Your task to perform on an android device: Is it going to rain tomorrow? Image 0: 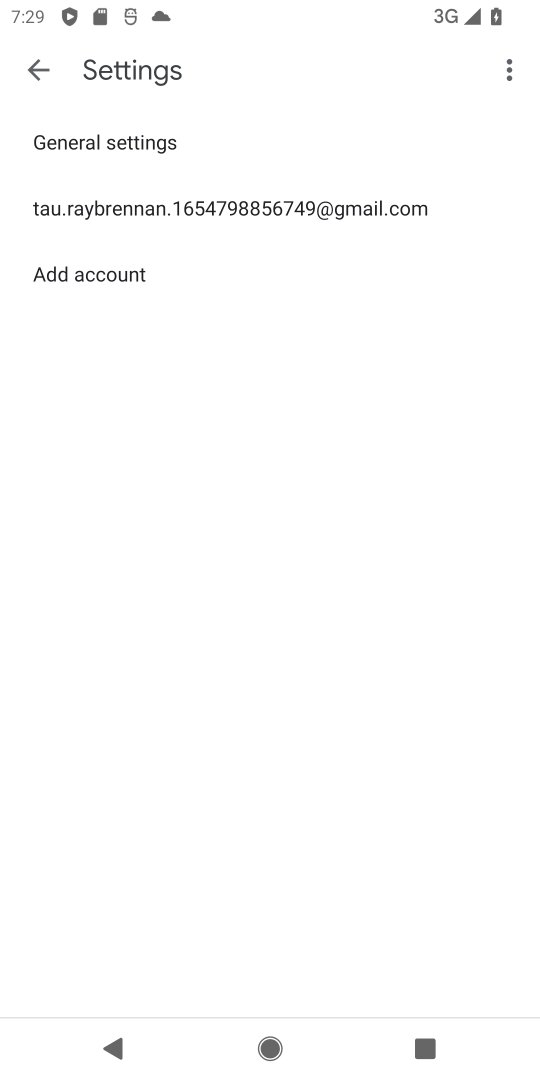
Step 0: press home button
Your task to perform on an android device: Is it going to rain tomorrow? Image 1: 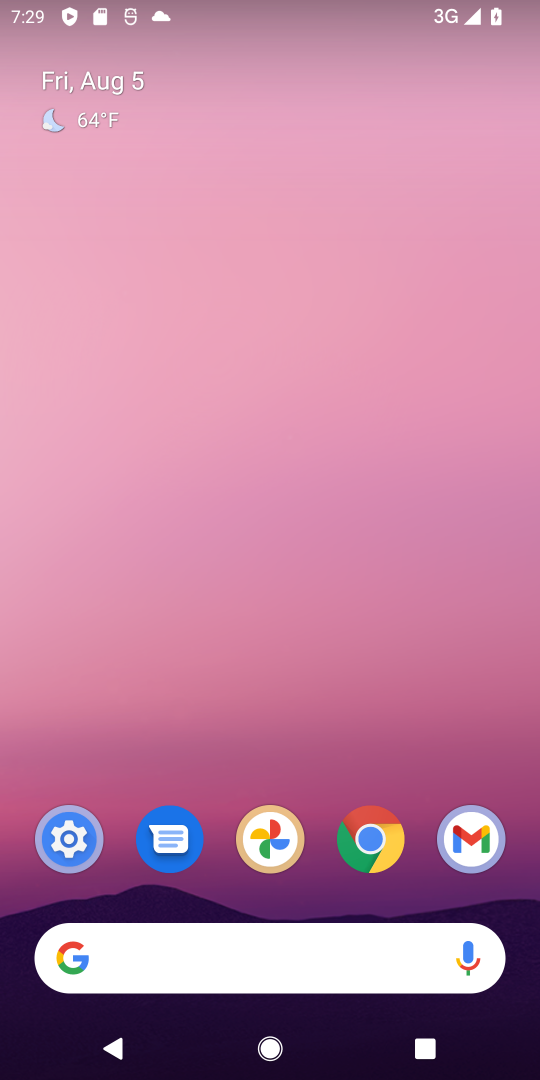
Step 1: drag from (362, 599) to (362, 176)
Your task to perform on an android device: Is it going to rain tomorrow? Image 2: 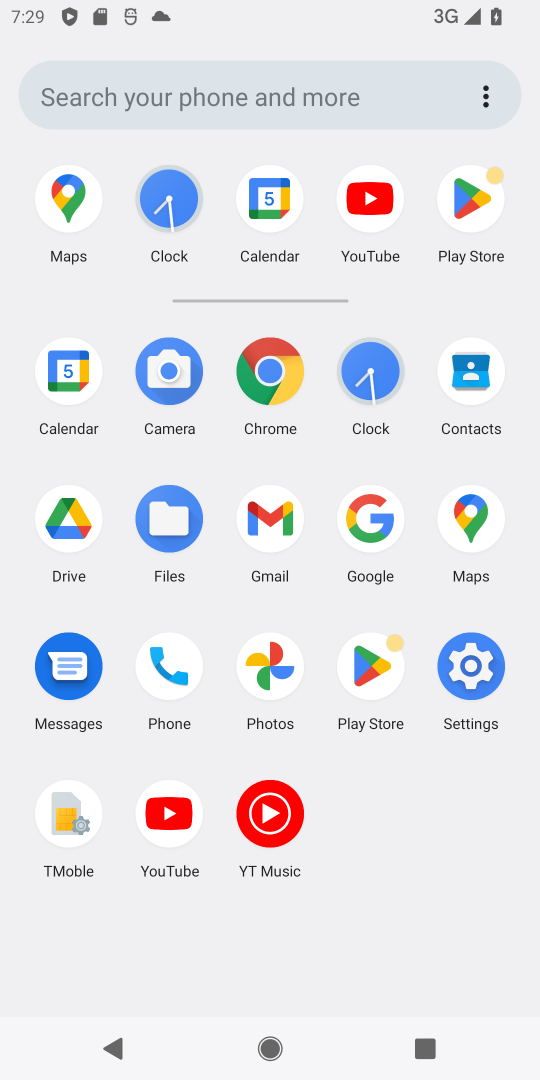
Step 2: click (364, 525)
Your task to perform on an android device: Is it going to rain tomorrow? Image 3: 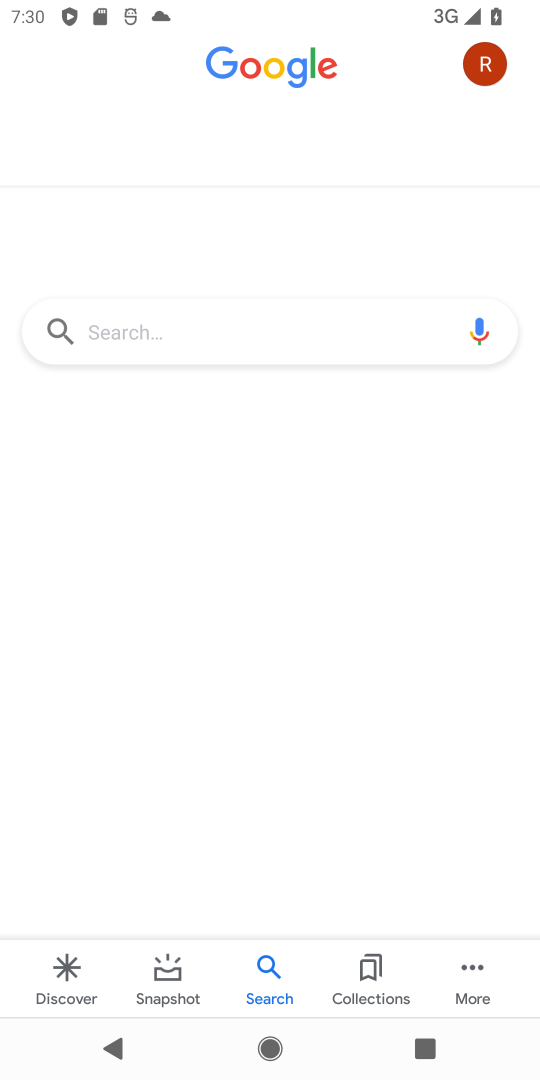
Step 3: click (185, 338)
Your task to perform on an android device: Is it going to rain tomorrow? Image 4: 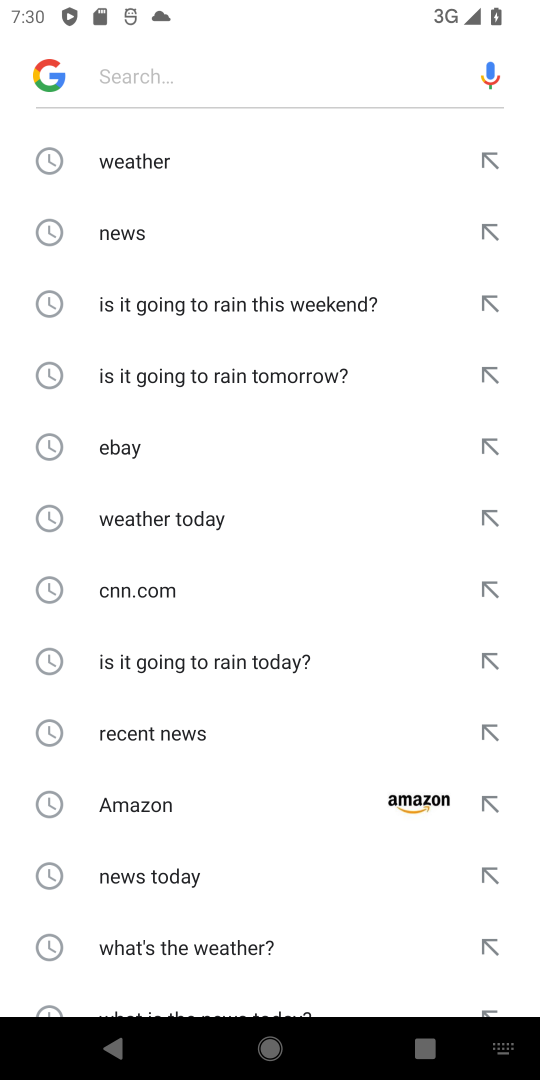
Step 4: click (137, 153)
Your task to perform on an android device: Is it going to rain tomorrow? Image 5: 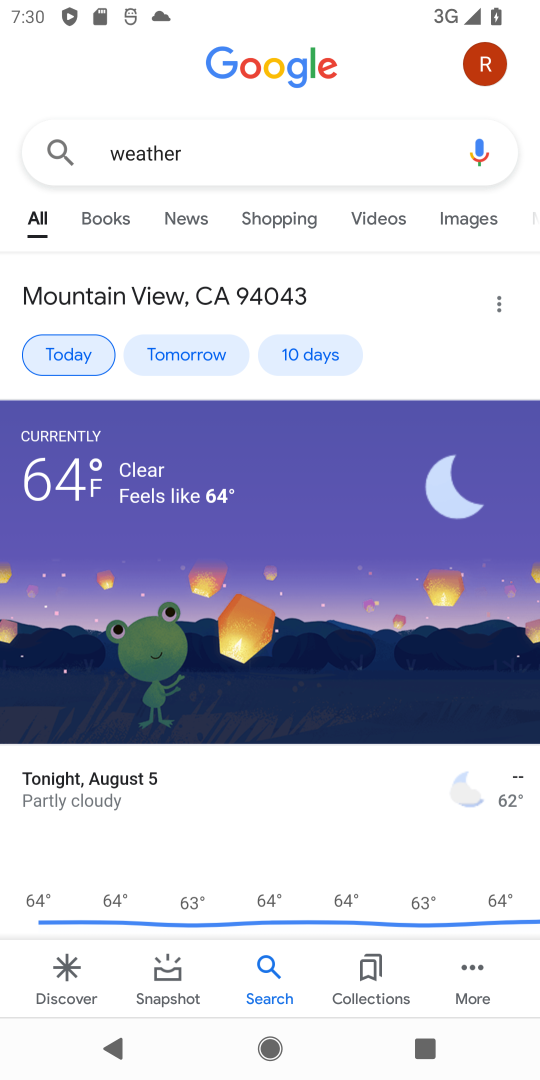
Step 5: click (180, 356)
Your task to perform on an android device: Is it going to rain tomorrow? Image 6: 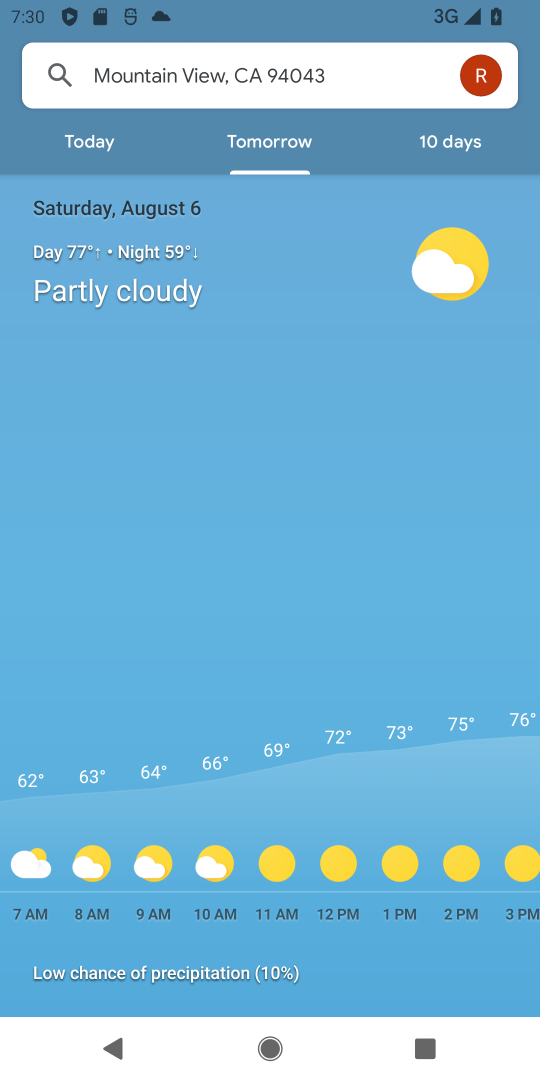
Step 6: task complete